Your task to perform on an android device: Is it going to rain tomorrow? Image 0: 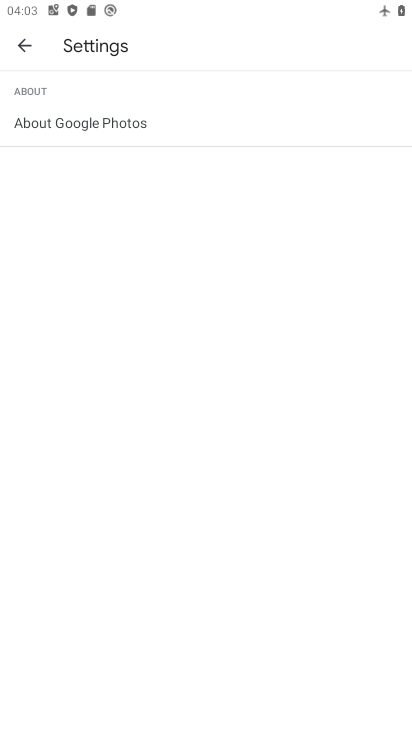
Step 0: press home button
Your task to perform on an android device: Is it going to rain tomorrow? Image 1: 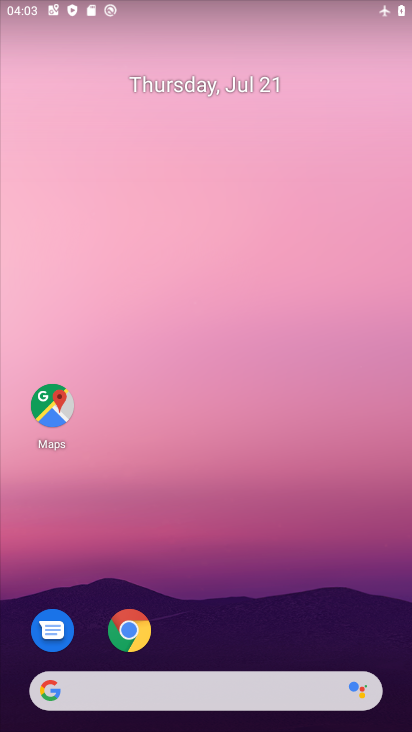
Step 1: click (220, 695)
Your task to perform on an android device: Is it going to rain tomorrow? Image 2: 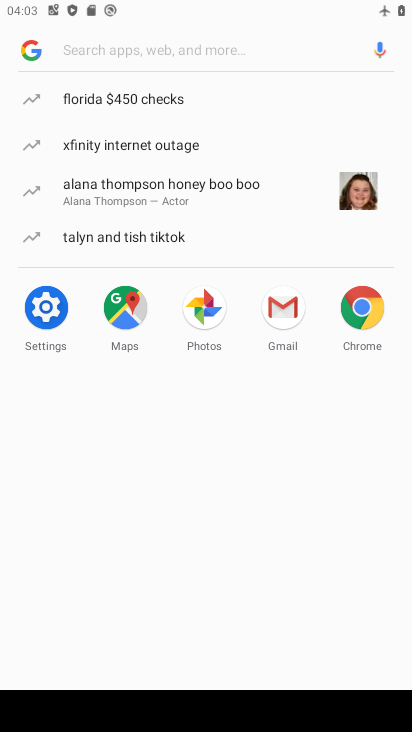
Step 2: click (123, 40)
Your task to perform on an android device: Is it going to rain tomorrow? Image 3: 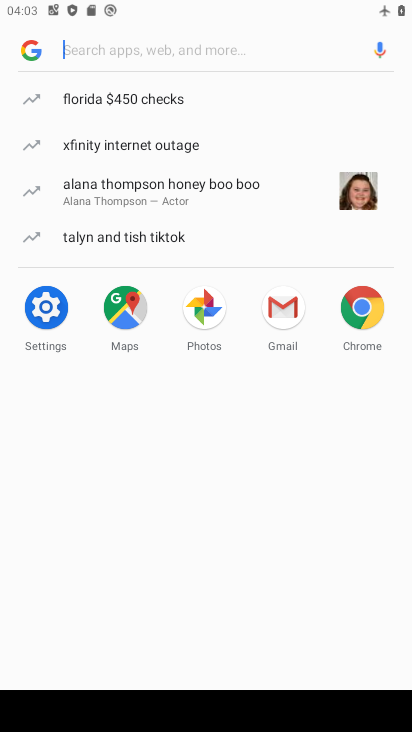
Step 3: type "weather"
Your task to perform on an android device: Is it going to rain tomorrow? Image 4: 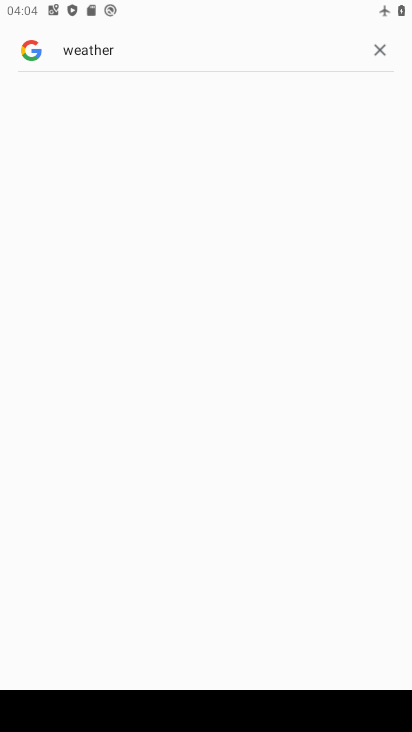
Step 4: task complete